Your task to perform on an android device: Open notification settings Image 0: 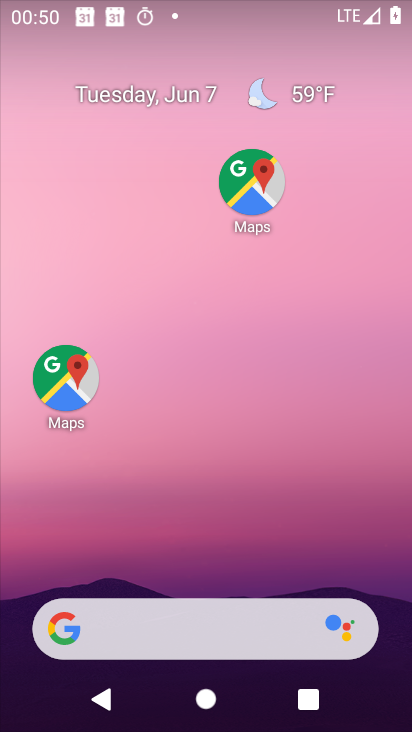
Step 0: drag from (235, 558) to (295, 124)
Your task to perform on an android device: Open notification settings Image 1: 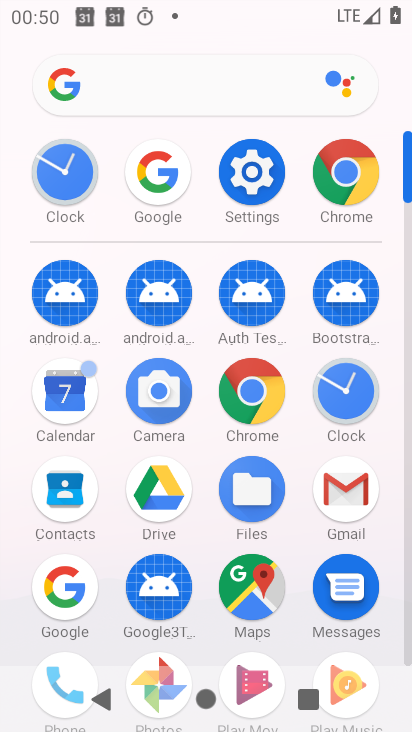
Step 1: click (255, 176)
Your task to perform on an android device: Open notification settings Image 2: 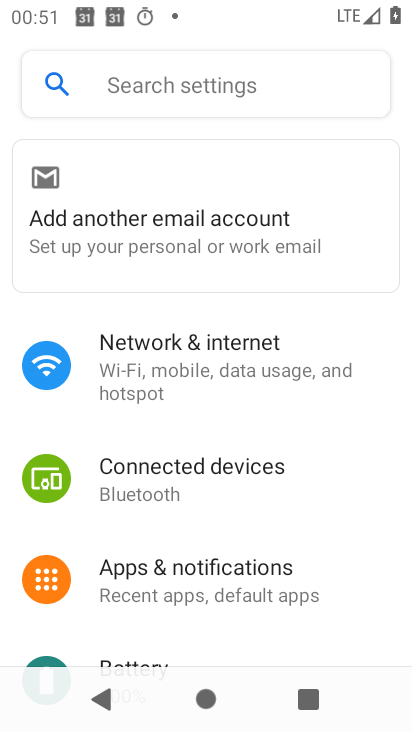
Step 2: click (209, 579)
Your task to perform on an android device: Open notification settings Image 3: 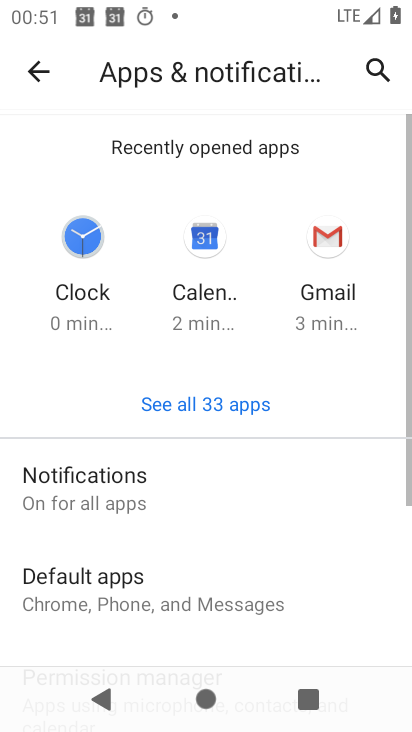
Step 3: click (111, 501)
Your task to perform on an android device: Open notification settings Image 4: 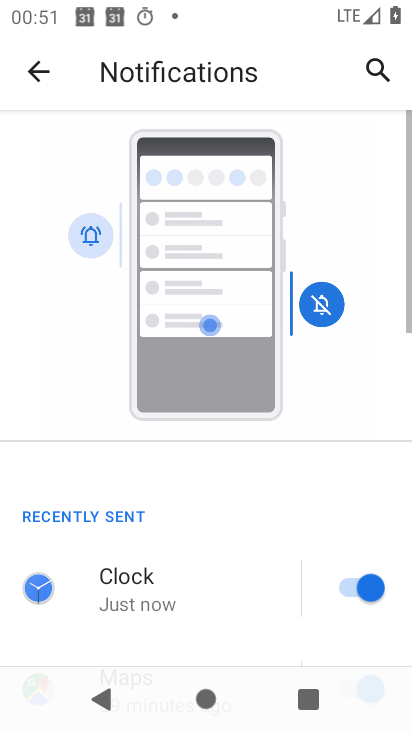
Step 4: task complete